Your task to perform on an android device: Open Chrome and go to settings Image 0: 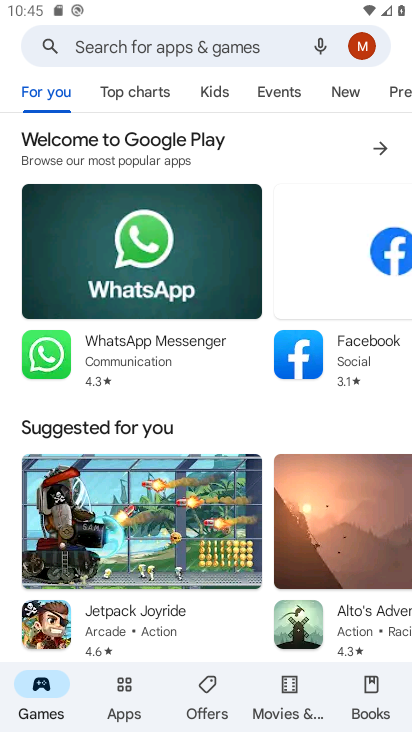
Step 0: press back button
Your task to perform on an android device: Open Chrome and go to settings Image 1: 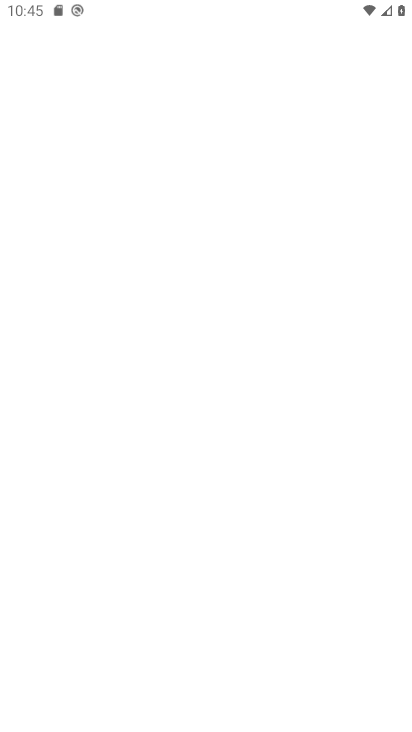
Step 1: press back button
Your task to perform on an android device: Open Chrome and go to settings Image 2: 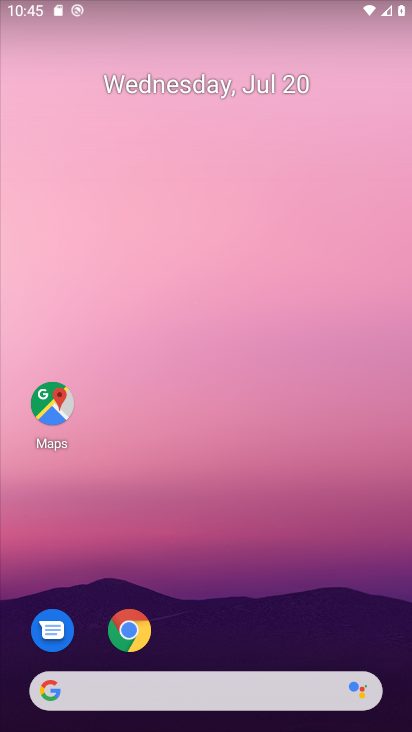
Step 2: drag from (244, 536) to (195, 48)
Your task to perform on an android device: Open Chrome and go to settings Image 3: 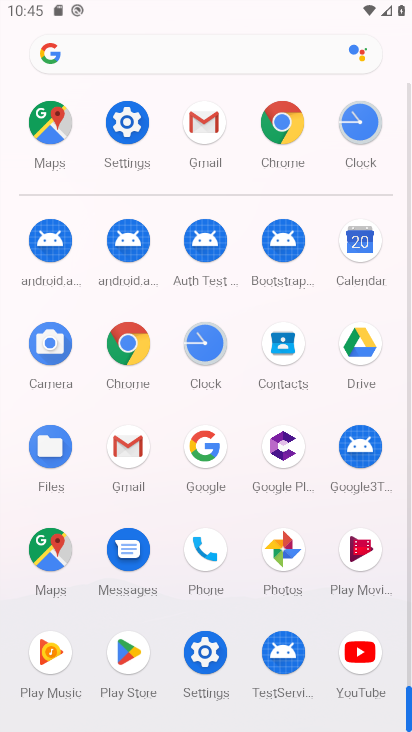
Step 3: click (133, 127)
Your task to perform on an android device: Open Chrome and go to settings Image 4: 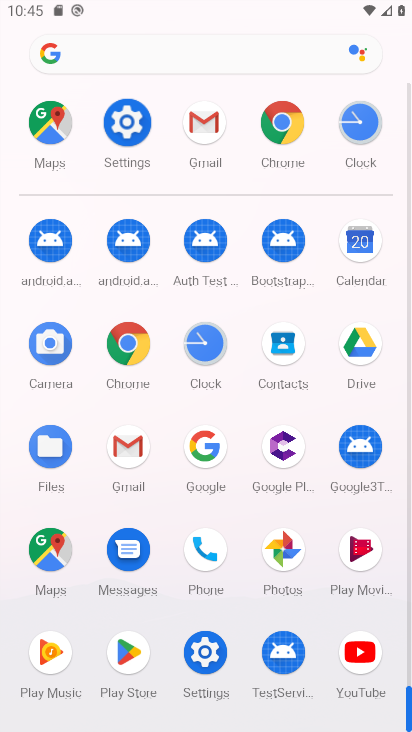
Step 4: click (134, 126)
Your task to perform on an android device: Open Chrome and go to settings Image 5: 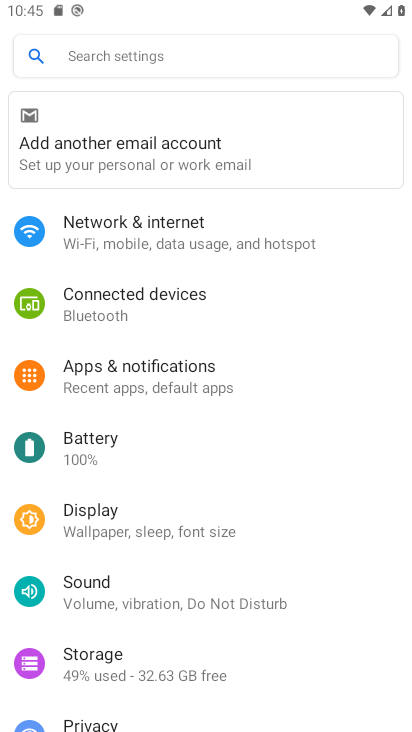
Step 5: press back button
Your task to perform on an android device: Open Chrome and go to settings Image 6: 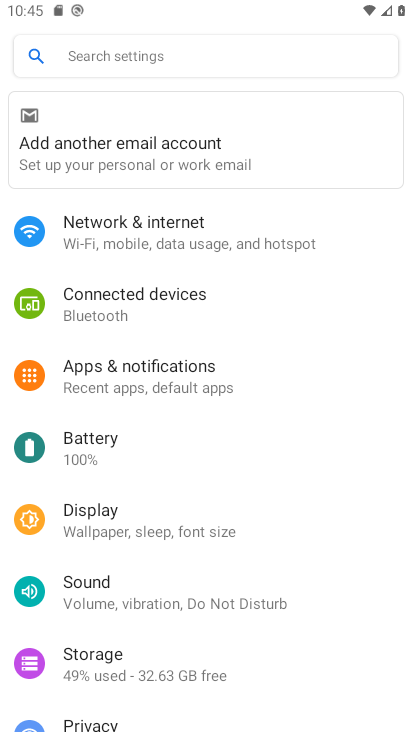
Step 6: press back button
Your task to perform on an android device: Open Chrome and go to settings Image 7: 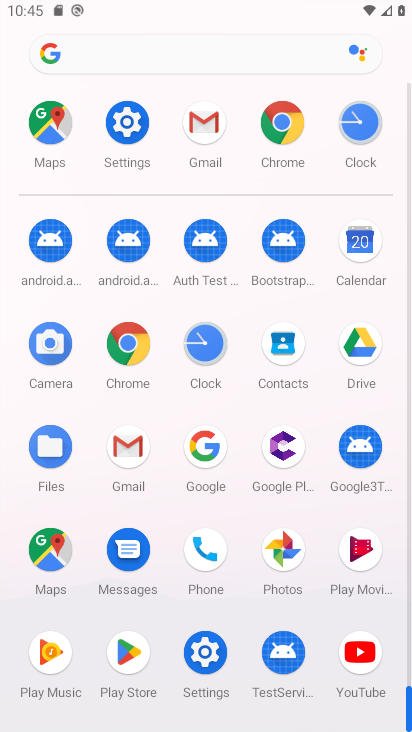
Step 7: press back button
Your task to perform on an android device: Open Chrome and go to settings Image 8: 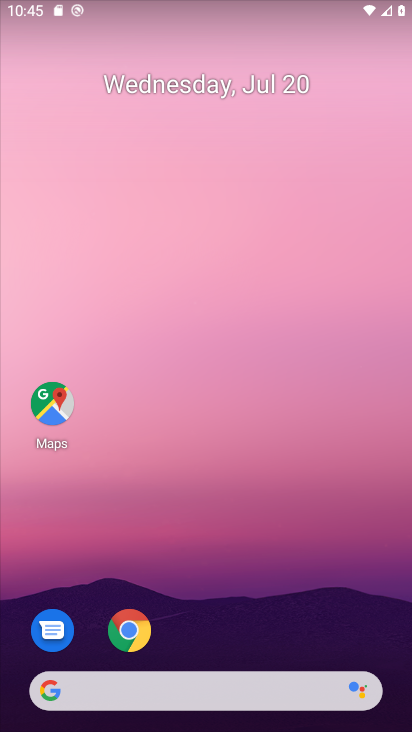
Step 8: drag from (267, 599) to (254, 82)
Your task to perform on an android device: Open Chrome and go to settings Image 9: 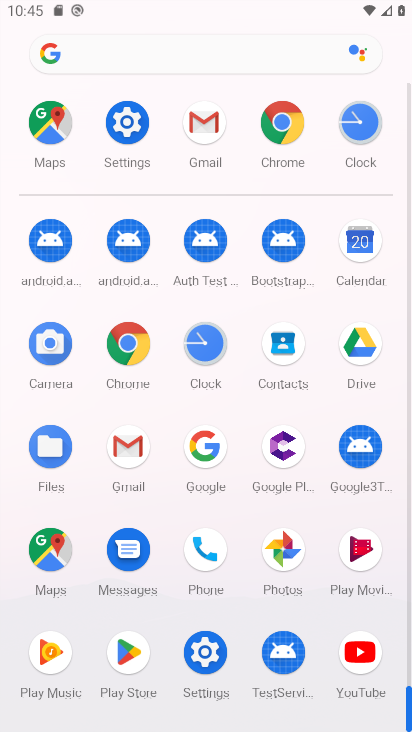
Step 9: click (275, 130)
Your task to perform on an android device: Open Chrome and go to settings Image 10: 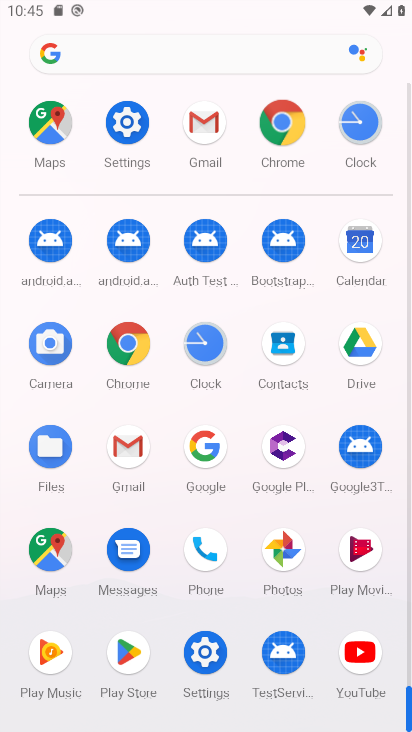
Step 10: click (280, 129)
Your task to perform on an android device: Open Chrome and go to settings Image 11: 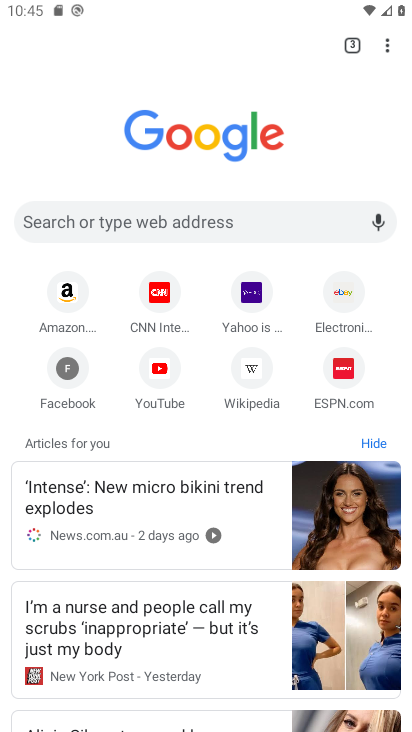
Step 11: drag from (391, 34) to (232, 384)
Your task to perform on an android device: Open Chrome and go to settings Image 12: 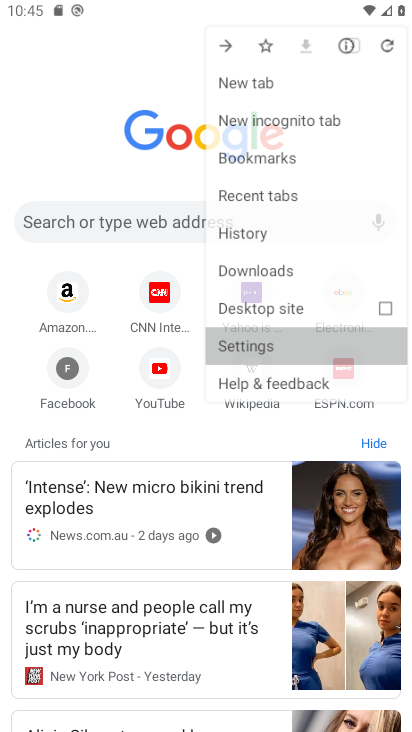
Step 12: click (233, 383)
Your task to perform on an android device: Open Chrome and go to settings Image 13: 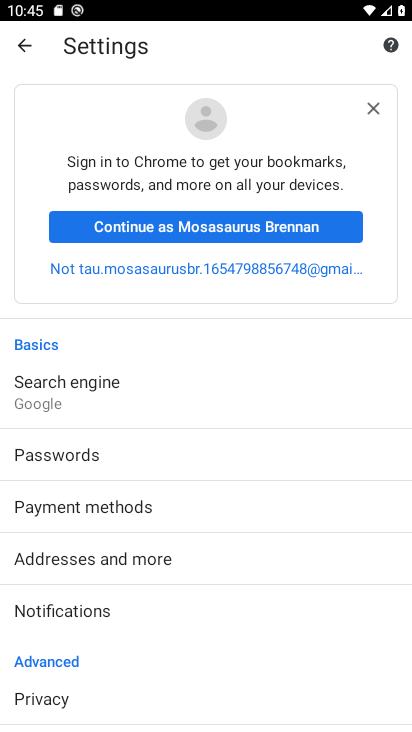
Step 13: click (371, 108)
Your task to perform on an android device: Open Chrome and go to settings Image 14: 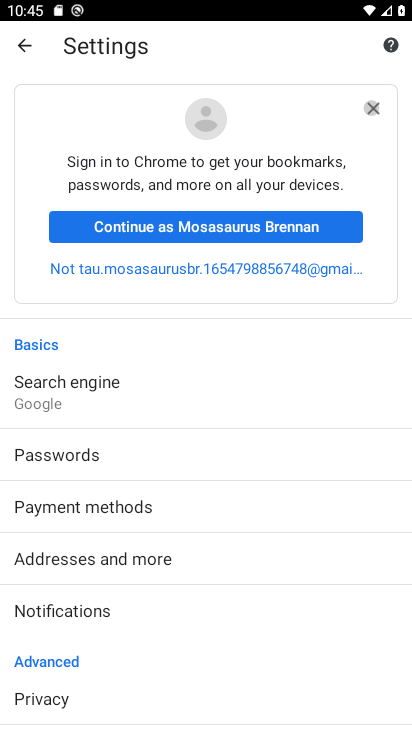
Step 14: click (371, 108)
Your task to perform on an android device: Open Chrome and go to settings Image 15: 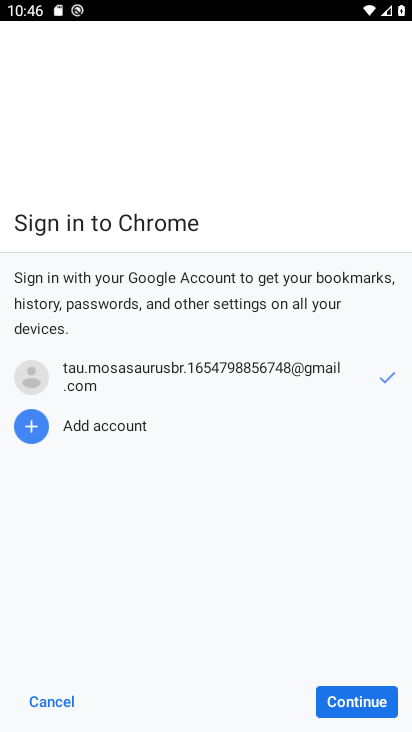
Step 15: click (33, 706)
Your task to perform on an android device: Open Chrome and go to settings Image 16: 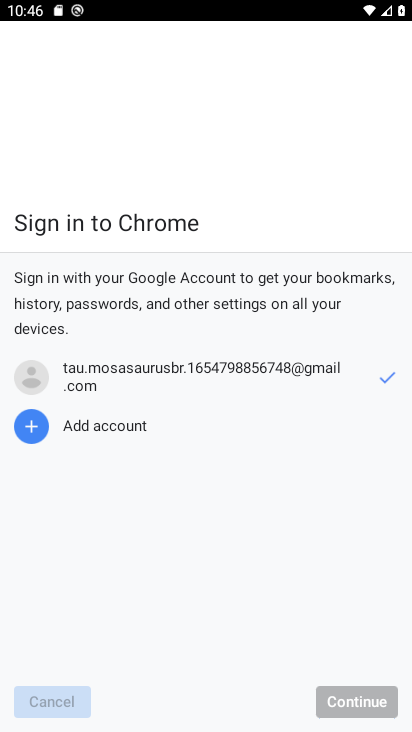
Step 16: click (34, 706)
Your task to perform on an android device: Open Chrome and go to settings Image 17: 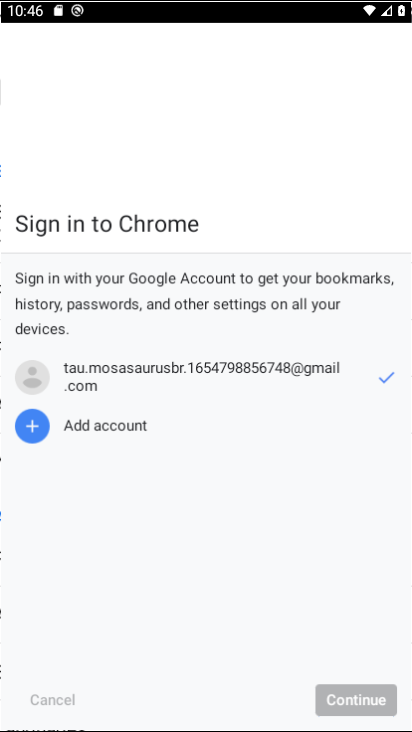
Step 17: click (51, 686)
Your task to perform on an android device: Open Chrome and go to settings Image 18: 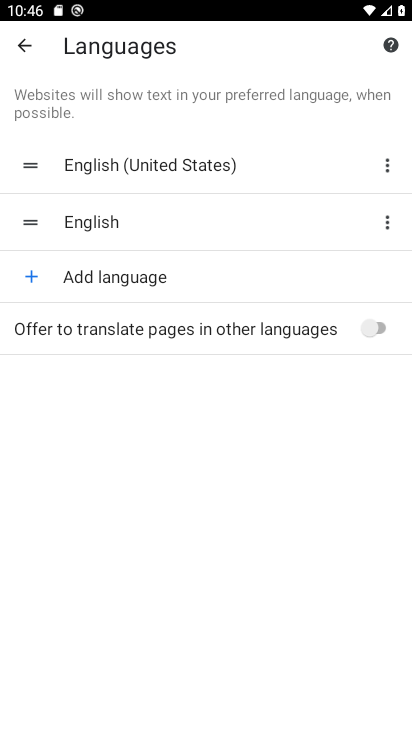
Step 18: click (17, 48)
Your task to perform on an android device: Open Chrome and go to settings Image 19: 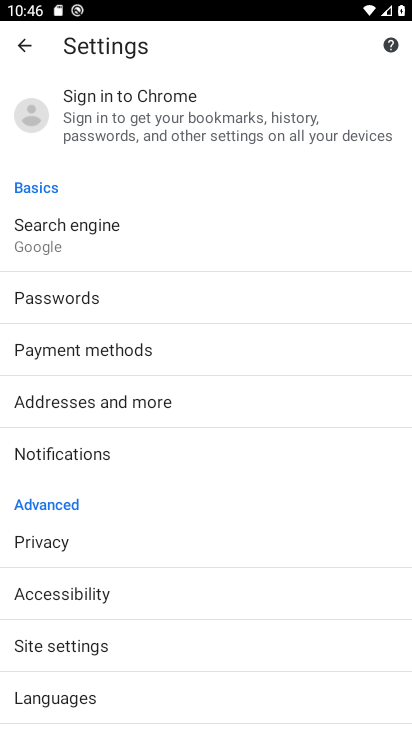
Step 19: task complete